Your task to perform on an android device: Turn on the flashlight Image 0: 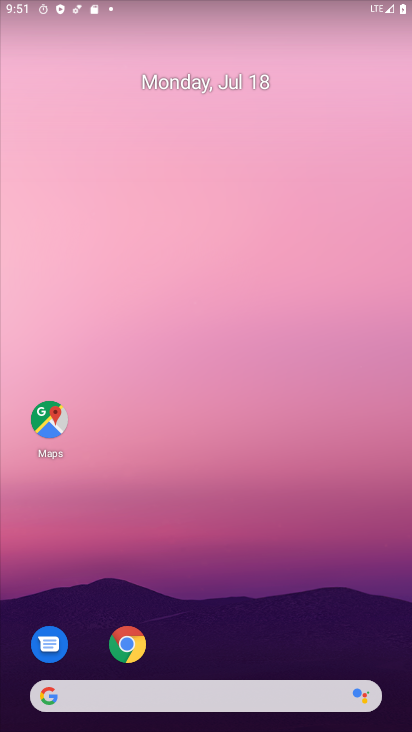
Step 0: press home button
Your task to perform on an android device: Turn on the flashlight Image 1: 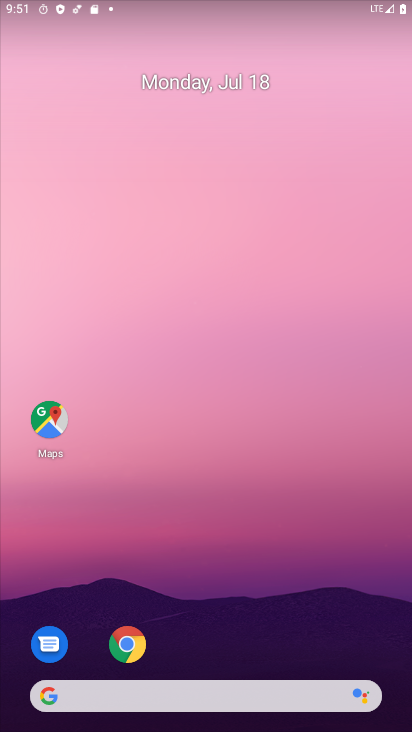
Step 1: drag from (203, 663) to (150, 61)
Your task to perform on an android device: Turn on the flashlight Image 2: 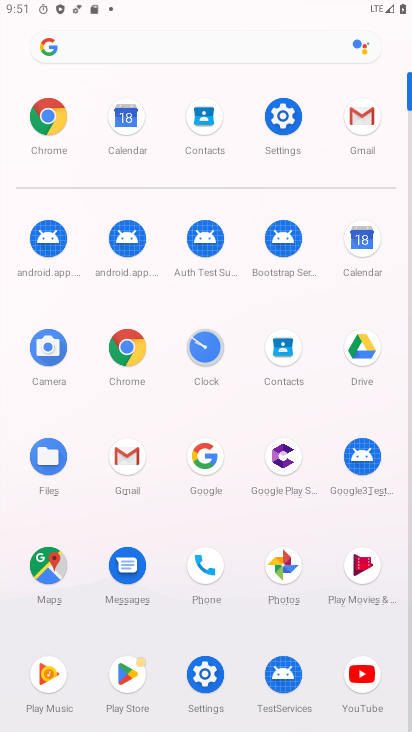
Step 2: click (283, 111)
Your task to perform on an android device: Turn on the flashlight Image 3: 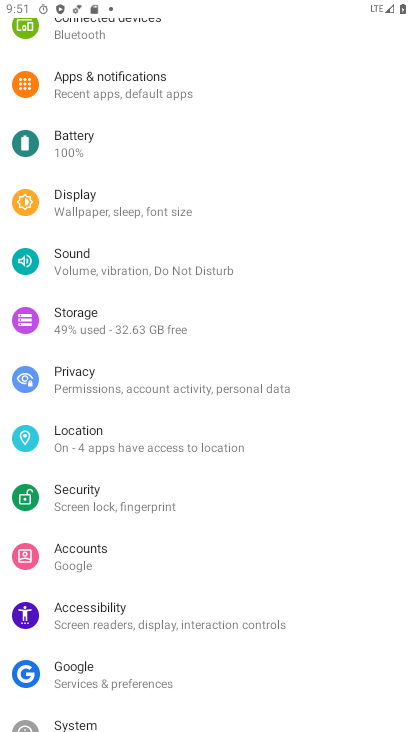
Step 3: drag from (188, 113) to (222, 580)
Your task to perform on an android device: Turn on the flashlight Image 4: 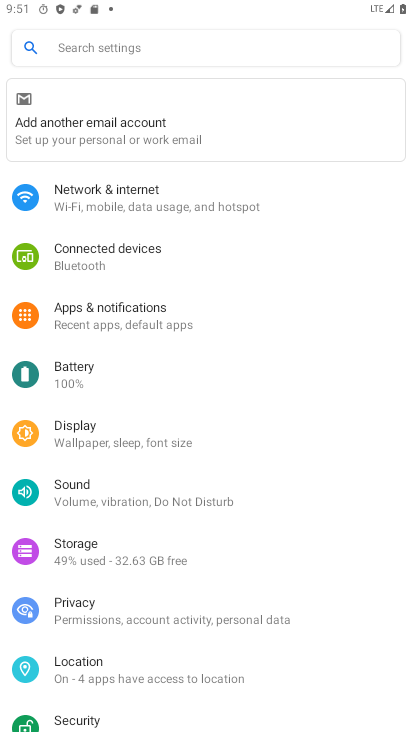
Step 4: click (100, 53)
Your task to perform on an android device: Turn on the flashlight Image 5: 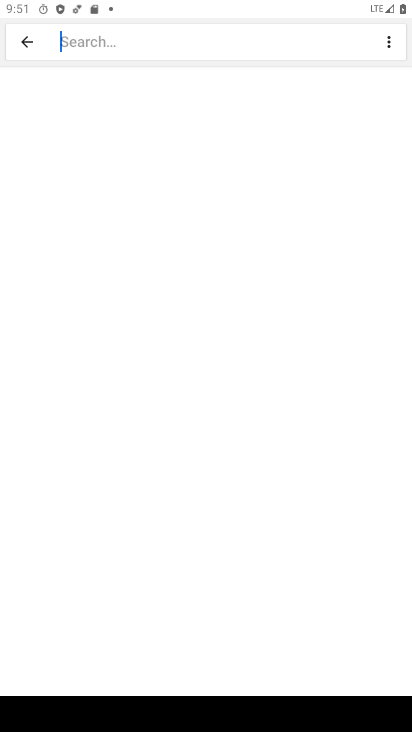
Step 5: type "flashlight"
Your task to perform on an android device: Turn on the flashlight Image 6: 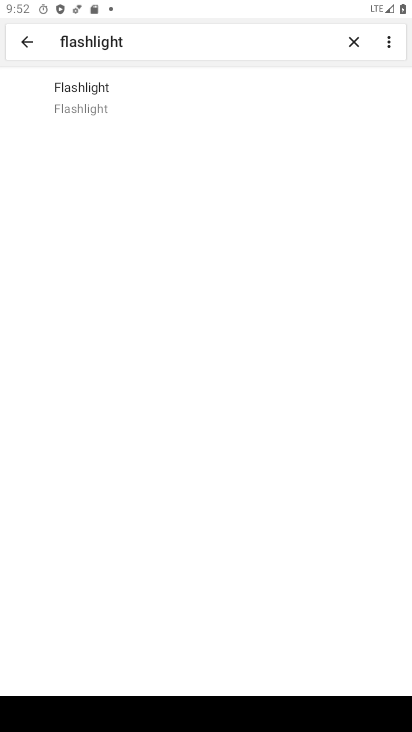
Step 6: click (113, 103)
Your task to perform on an android device: Turn on the flashlight Image 7: 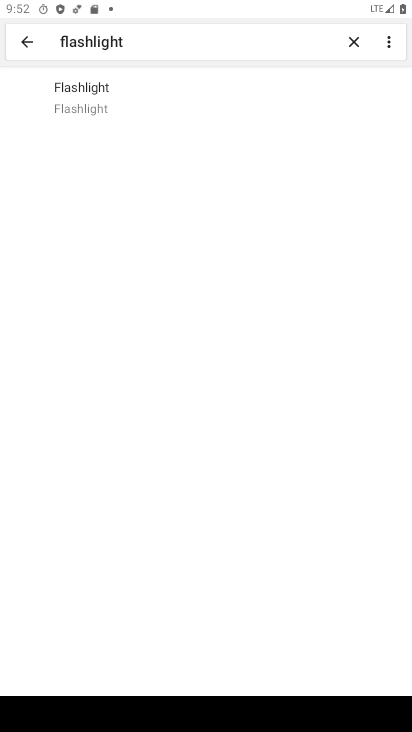
Step 7: click (112, 93)
Your task to perform on an android device: Turn on the flashlight Image 8: 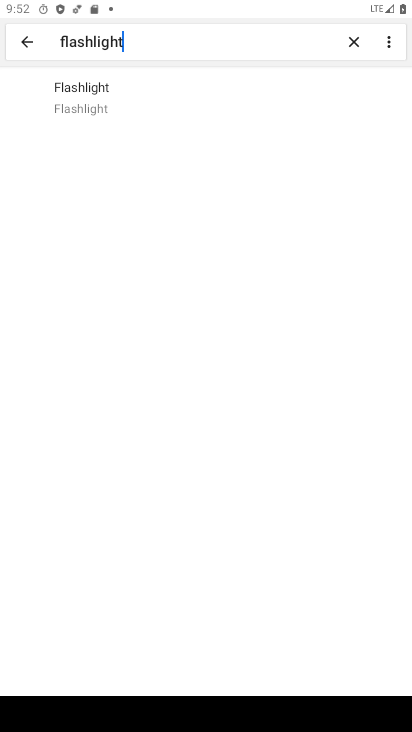
Step 8: click (117, 102)
Your task to perform on an android device: Turn on the flashlight Image 9: 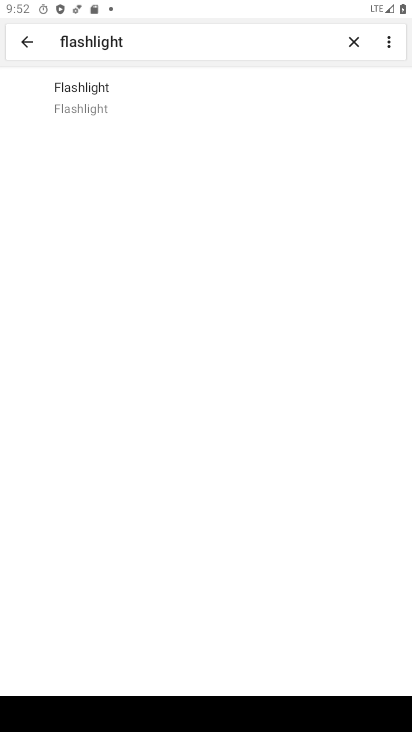
Step 9: task complete